Your task to perform on an android device: add a contact in the contacts app Image 0: 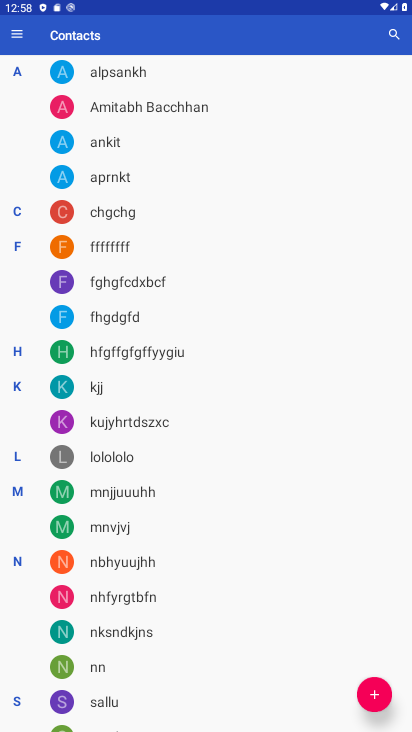
Step 0: click (382, 703)
Your task to perform on an android device: add a contact in the contacts app Image 1: 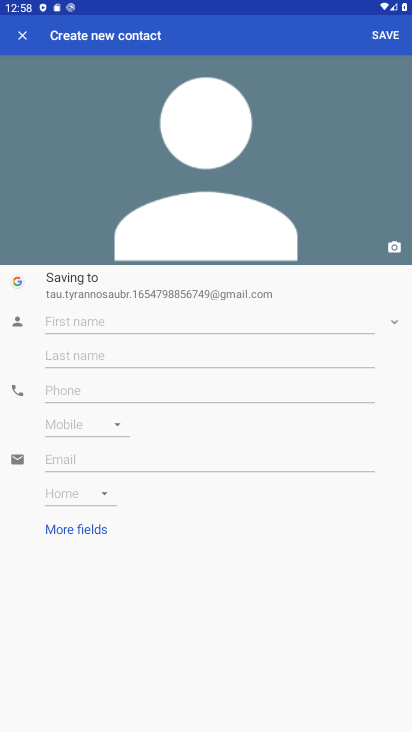
Step 1: click (43, 319)
Your task to perform on an android device: add a contact in the contacts app Image 2: 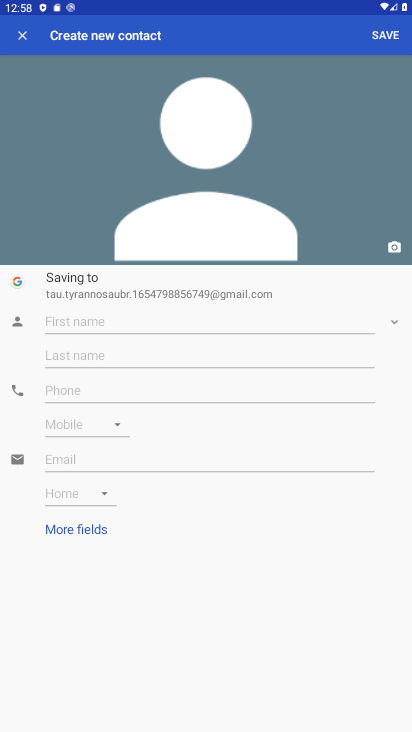
Step 2: type "gfnfdn"
Your task to perform on an android device: add a contact in the contacts app Image 3: 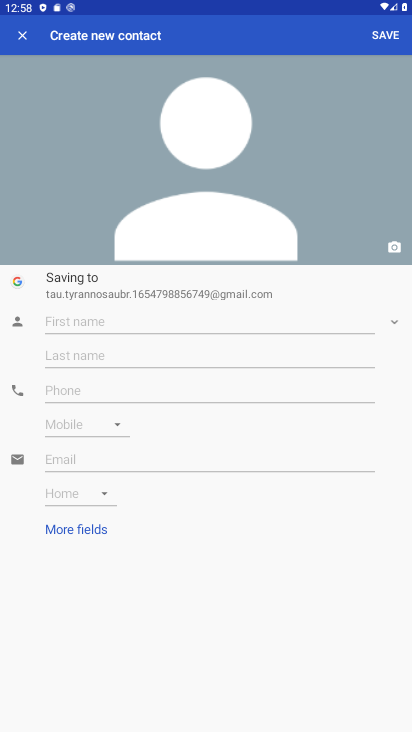
Step 3: click (99, 387)
Your task to perform on an android device: add a contact in the contacts app Image 4: 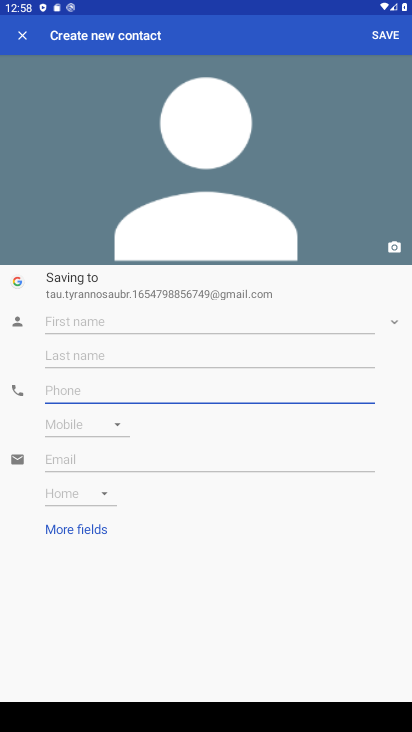
Step 4: type "8685756754"
Your task to perform on an android device: add a contact in the contacts app Image 5: 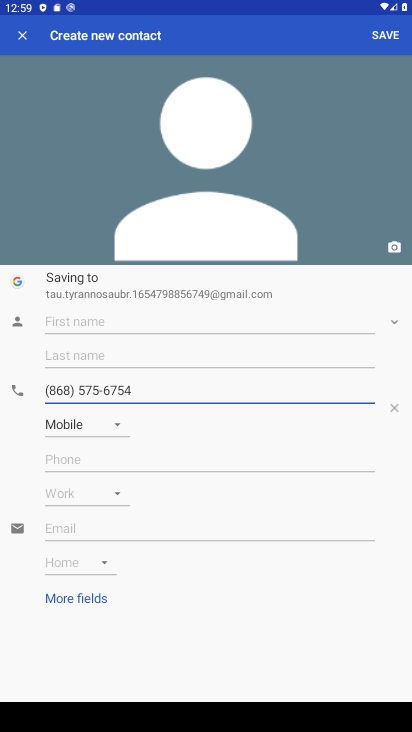
Step 5: click (386, 37)
Your task to perform on an android device: add a contact in the contacts app Image 6: 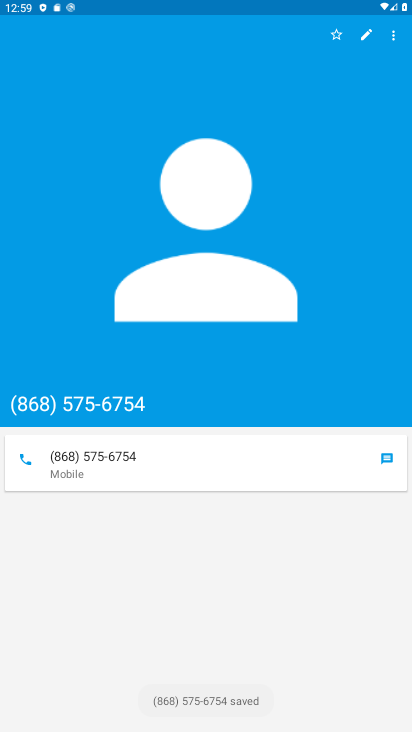
Step 6: task complete